Your task to perform on an android device: What's the weather going to be this weekend? Image 0: 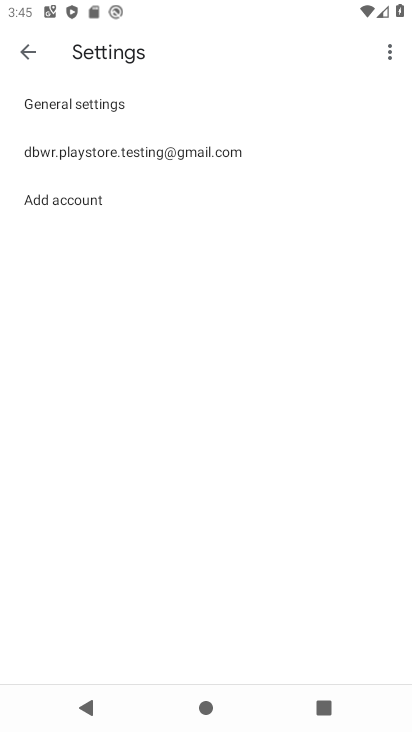
Step 0: press home button
Your task to perform on an android device: What's the weather going to be this weekend? Image 1: 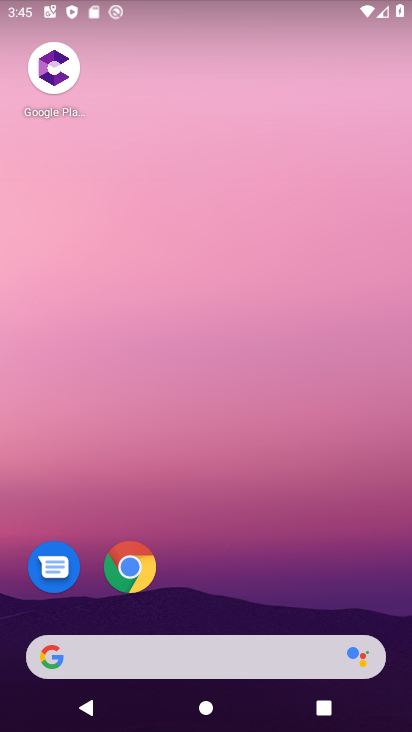
Step 1: click (115, 563)
Your task to perform on an android device: What's the weather going to be this weekend? Image 2: 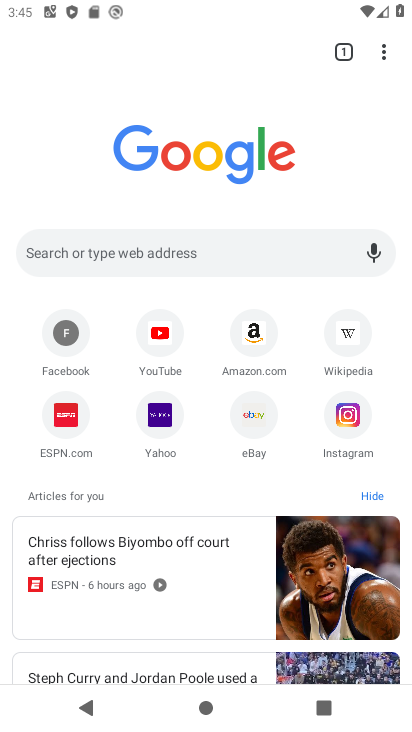
Step 2: click (120, 246)
Your task to perform on an android device: What's the weather going to be this weekend? Image 3: 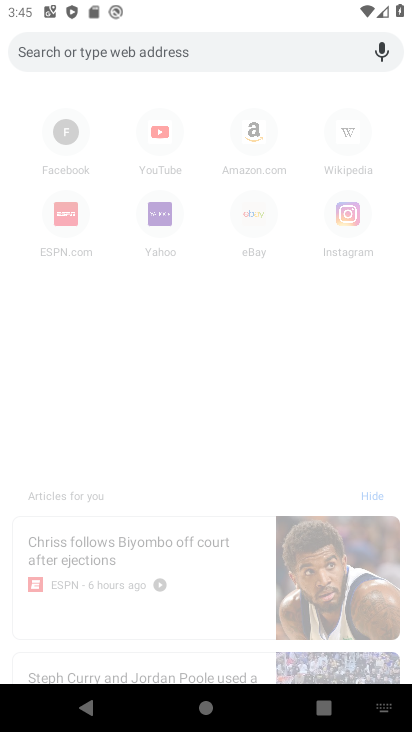
Step 3: click (214, 50)
Your task to perform on an android device: What's the weather going to be this weekend? Image 4: 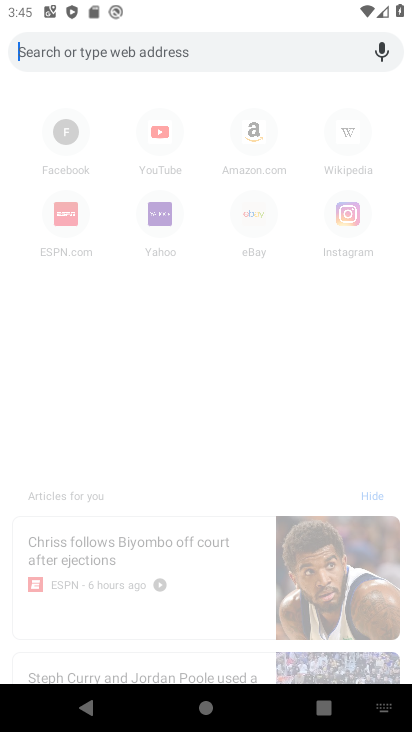
Step 4: type "What's the weather going to be this weekend?"
Your task to perform on an android device: What's the weather going to be this weekend? Image 5: 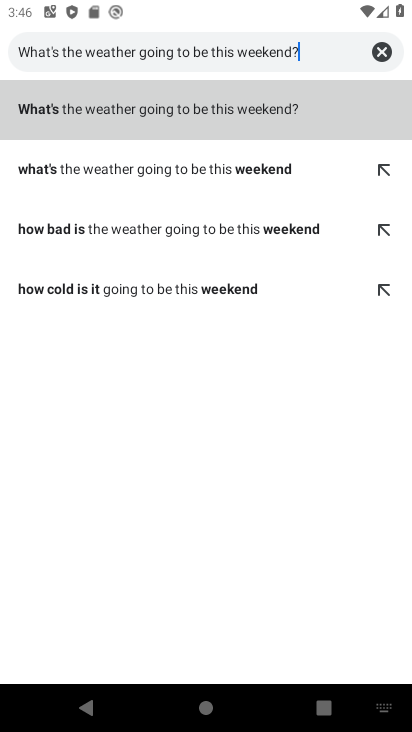
Step 5: click (231, 105)
Your task to perform on an android device: What's the weather going to be this weekend? Image 6: 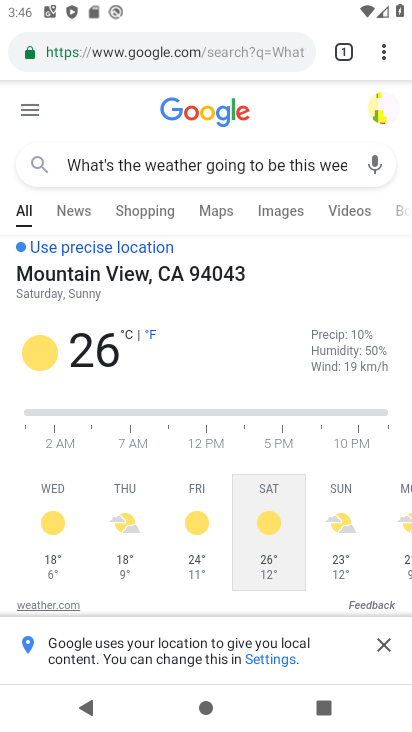
Step 6: task complete